Your task to perform on an android device: Go to calendar. Show me events next week Image 0: 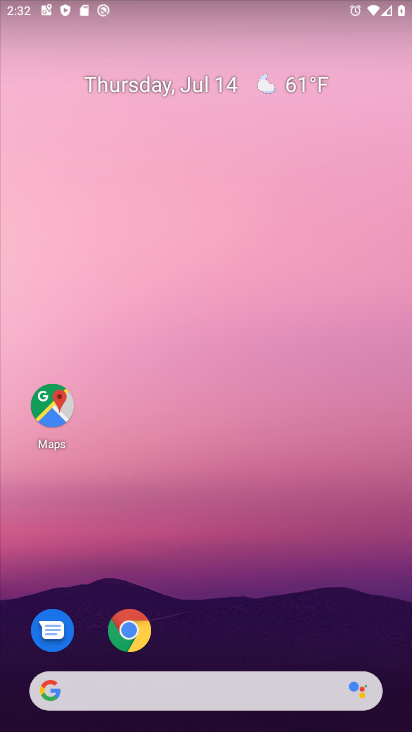
Step 0: drag from (148, 673) to (294, 108)
Your task to perform on an android device: Go to calendar. Show me events next week Image 1: 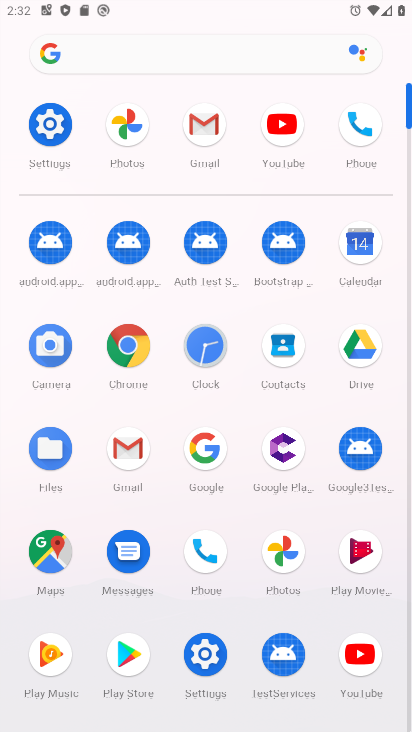
Step 1: click (361, 255)
Your task to perform on an android device: Go to calendar. Show me events next week Image 2: 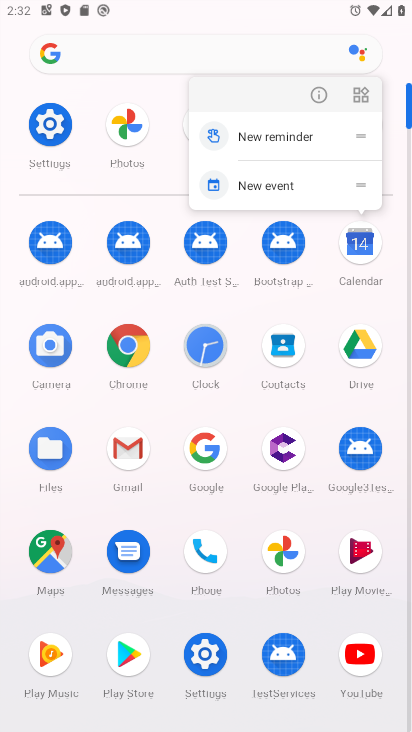
Step 2: click (356, 246)
Your task to perform on an android device: Go to calendar. Show me events next week Image 3: 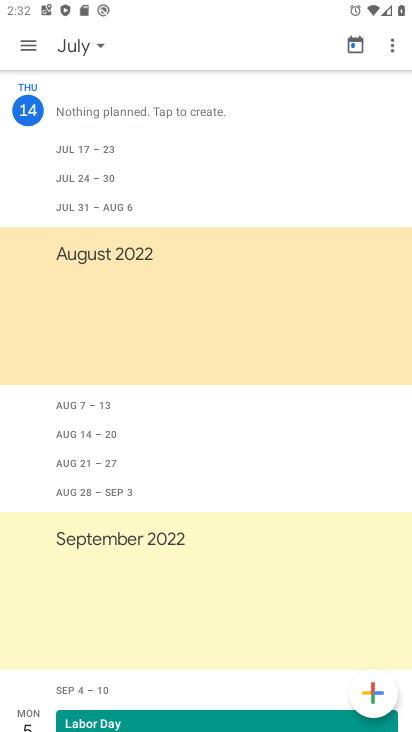
Step 3: click (83, 49)
Your task to perform on an android device: Go to calendar. Show me events next week Image 4: 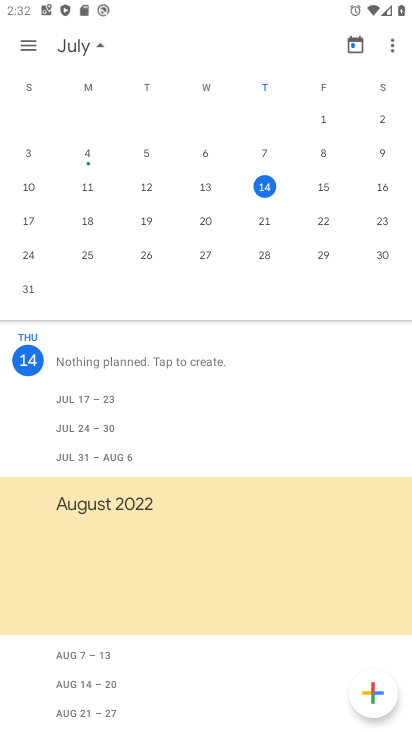
Step 4: click (27, 233)
Your task to perform on an android device: Go to calendar. Show me events next week Image 5: 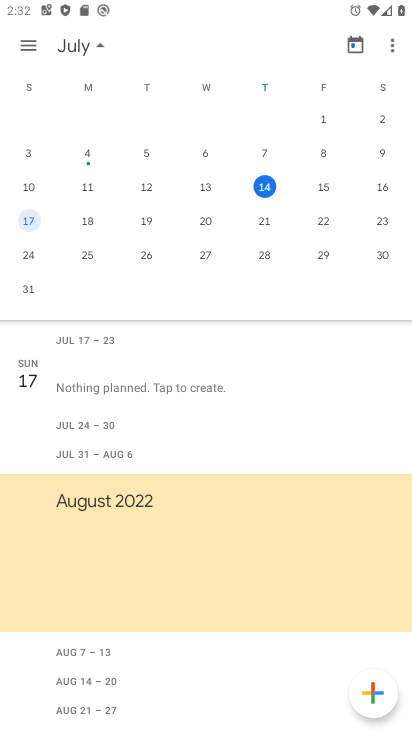
Step 5: click (27, 37)
Your task to perform on an android device: Go to calendar. Show me events next week Image 6: 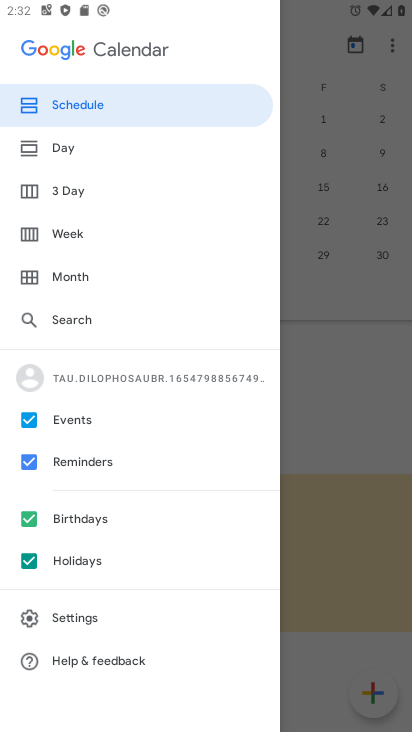
Step 6: click (67, 234)
Your task to perform on an android device: Go to calendar. Show me events next week Image 7: 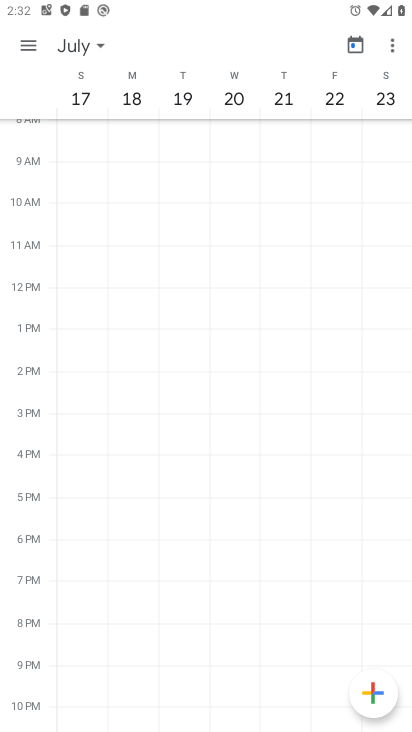
Step 7: task complete